Your task to perform on an android device: add a contact Image 0: 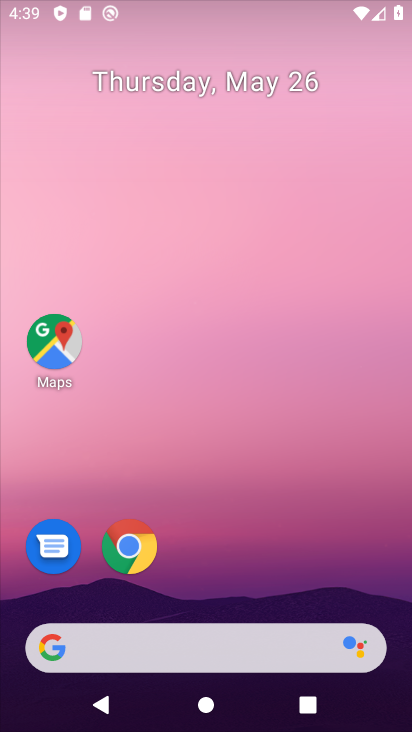
Step 0: drag from (245, 574) to (180, 245)
Your task to perform on an android device: add a contact Image 1: 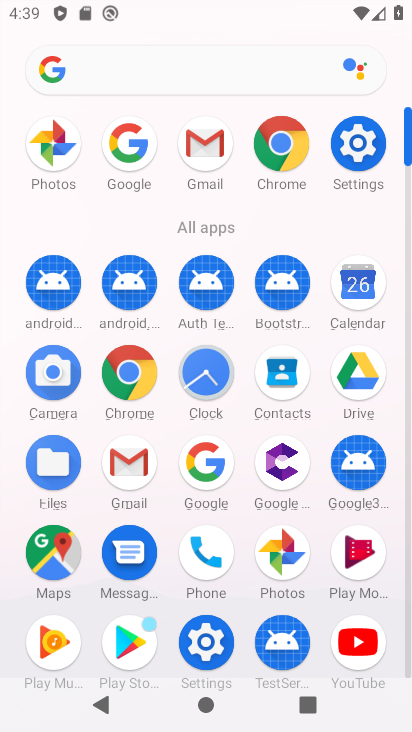
Step 1: click (279, 366)
Your task to perform on an android device: add a contact Image 2: 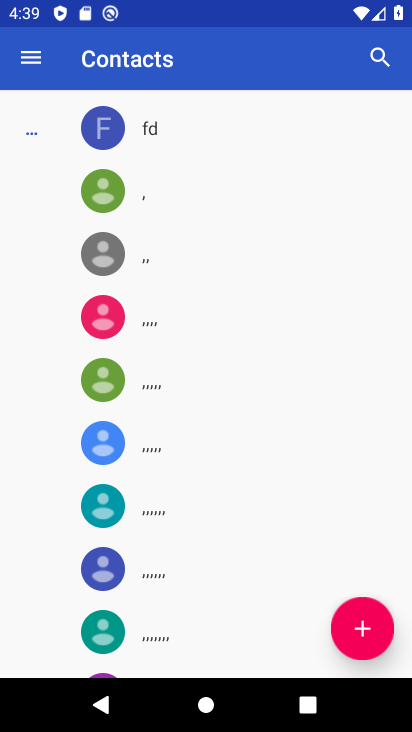
Step 2: click (374, 623)
Your task to perform on an android device: add a contact Image 3: 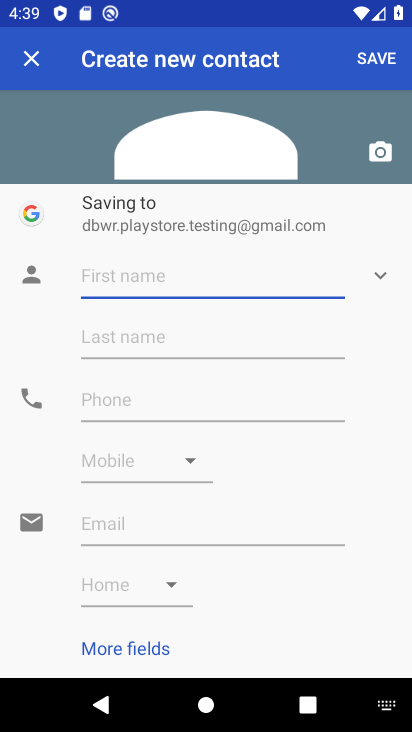
Step 3: type "chgchgch"
Your task to perform on an android device: add a contact Image 4: 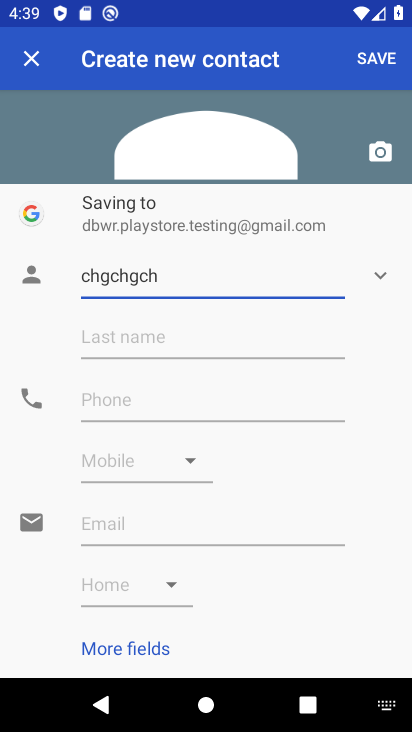
Step 4: click (314, 410)
Your task to perform on an android device: add a contact Image 5: 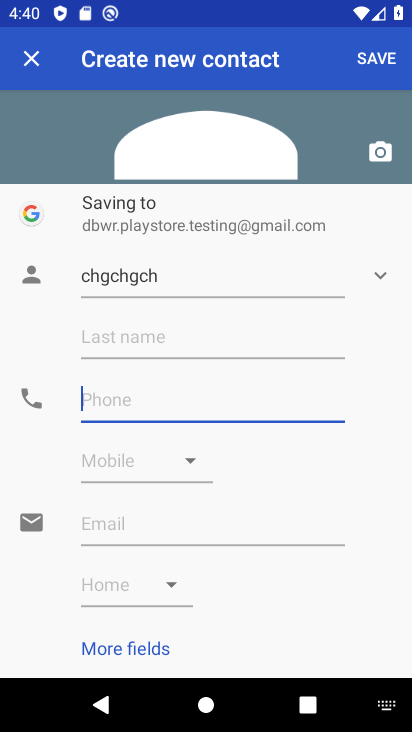
Step 5: type "8978978"
Your task to perform on an android device: add a contact Image 6: 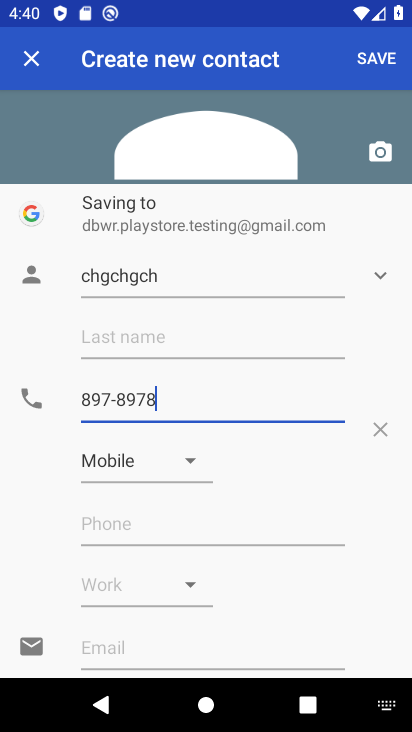
Step 6: click (378, 61)
Your task to perform on an android device: add a contact Image 7: 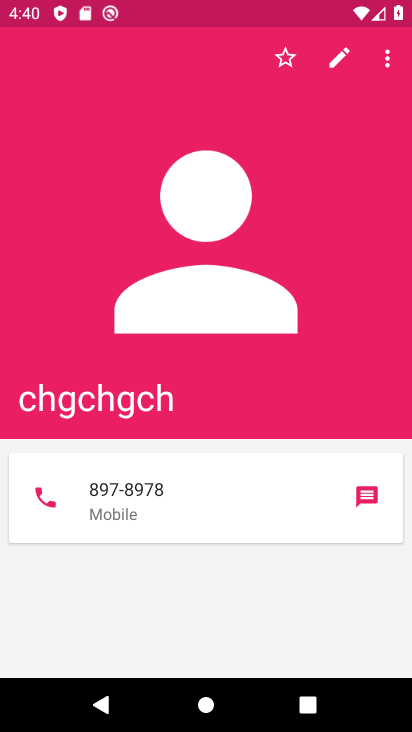
Step 7: task complete